Your task to perform on an android device: manage bookmarks in the chrome app Image 0: 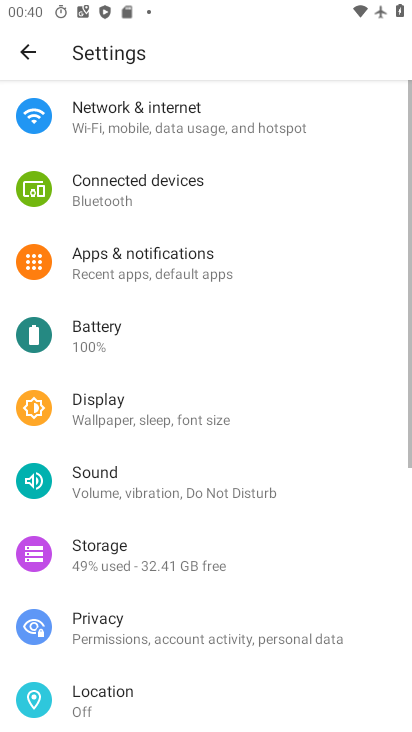
Step 0: press home button
Your task to perform on an android device: manage bookmarks in the chrome app Image 1: 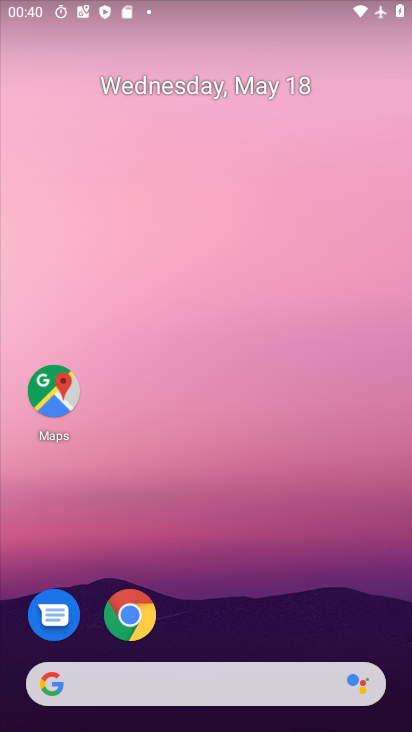
Step 1: click (123, 627)
Your task to perform on an android device: manage bookmarks in the chrome app Image 2: 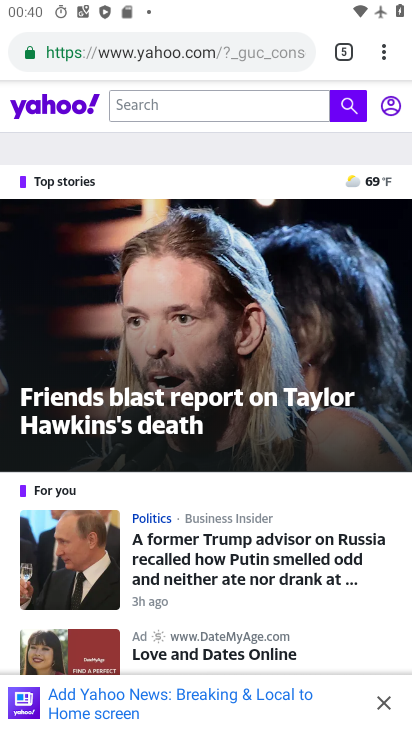
Step 2: click (375, 60)
Your task to perform on an android device: manage bookmarks in the chrome app Image 3: 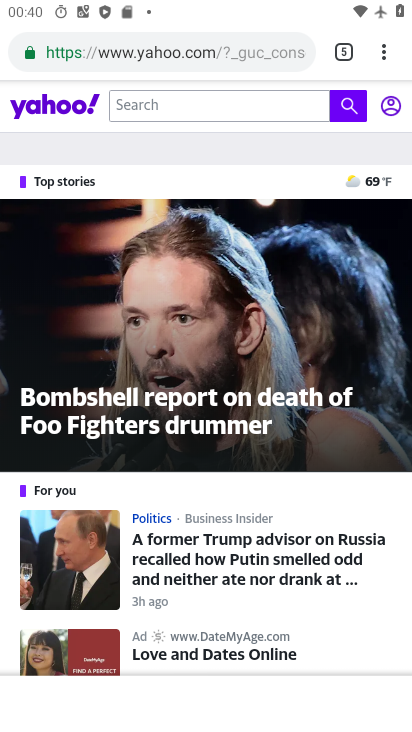
Step 3: task complete